Your task to perform on an android device: open a bookmark in the chrome app Image 0: 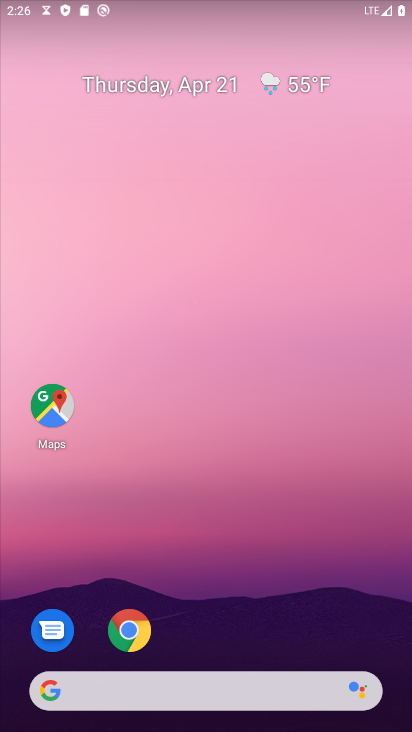
Step 0: click (137, 633)
Your task to perform on an android device: open a bookmark in the chrome app Image 1: 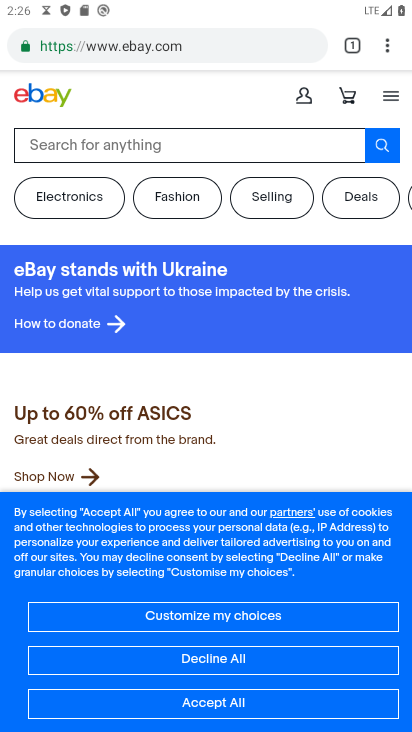
Step 1: click (386, 48)
Your task to perform on an android device: open a bookmark in the chrome app Image 2: 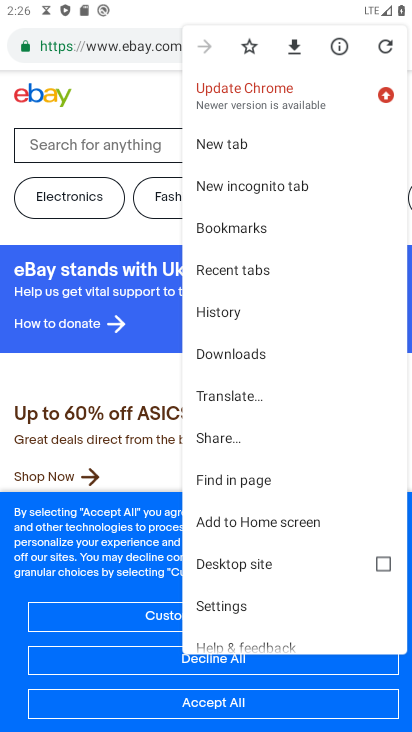
Step 2: click (224, 230)
Your task to perform on an android device: open a bookmark in the chrome app Image 3: 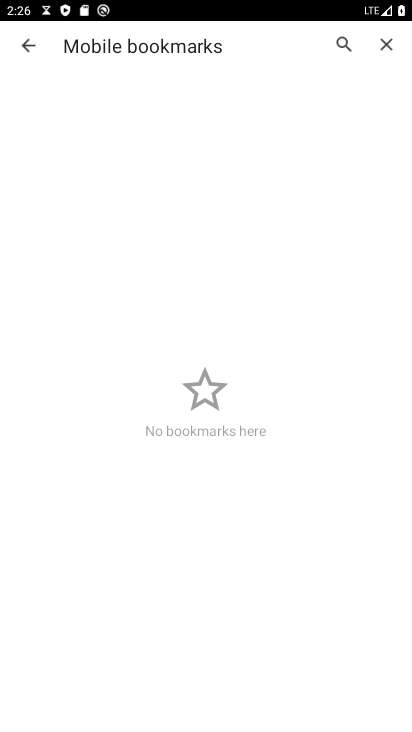
Step 3: task complete